Your task to perform on an android device: turn on showing notifications on the lock screen Image 0: 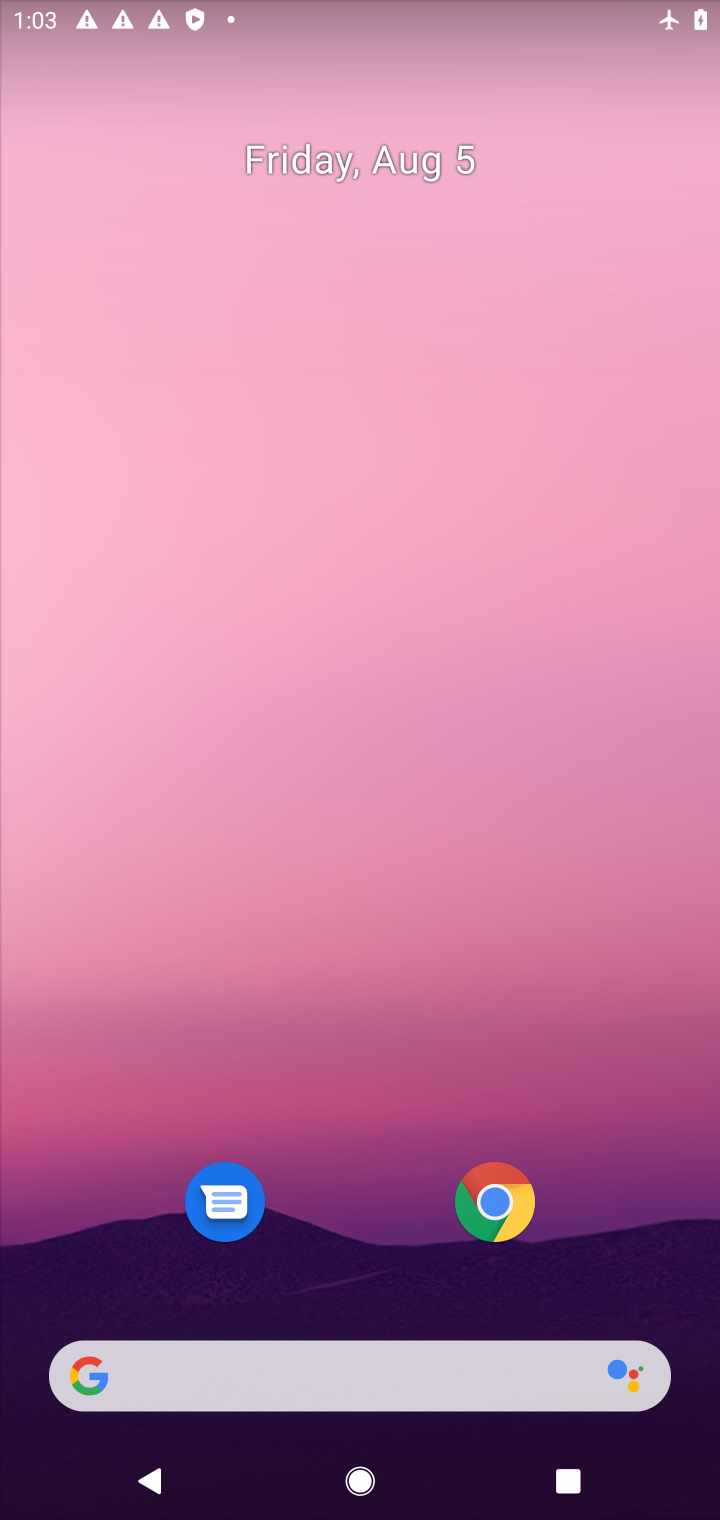
Step 0: drag from (359, 1225) to (569, 138)
Your task to perform on an android device: turn on showing notifications on the lock screen Image 1: 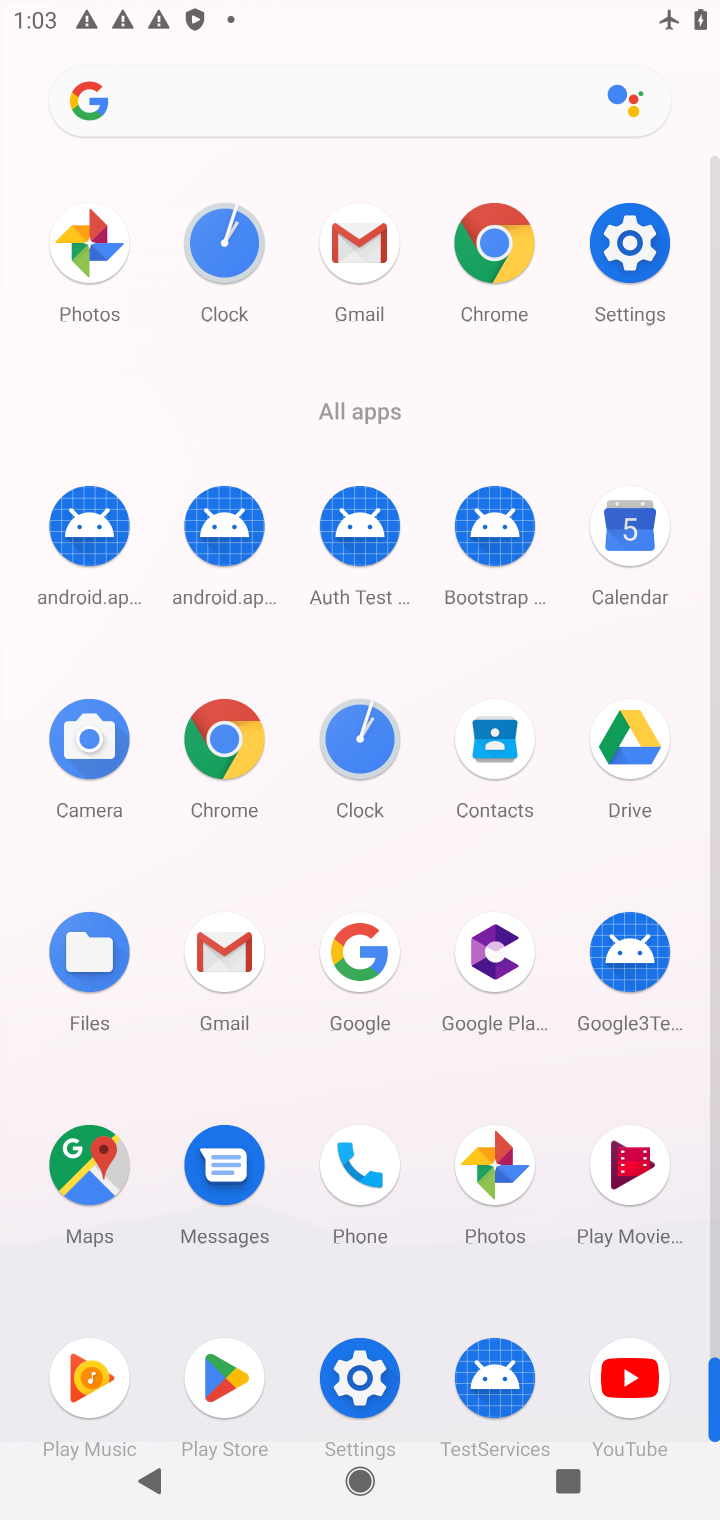
Step 1: click (349, 1398)
Your task to perform on an android device: turn on showing notifications on the lock screen Image 2: 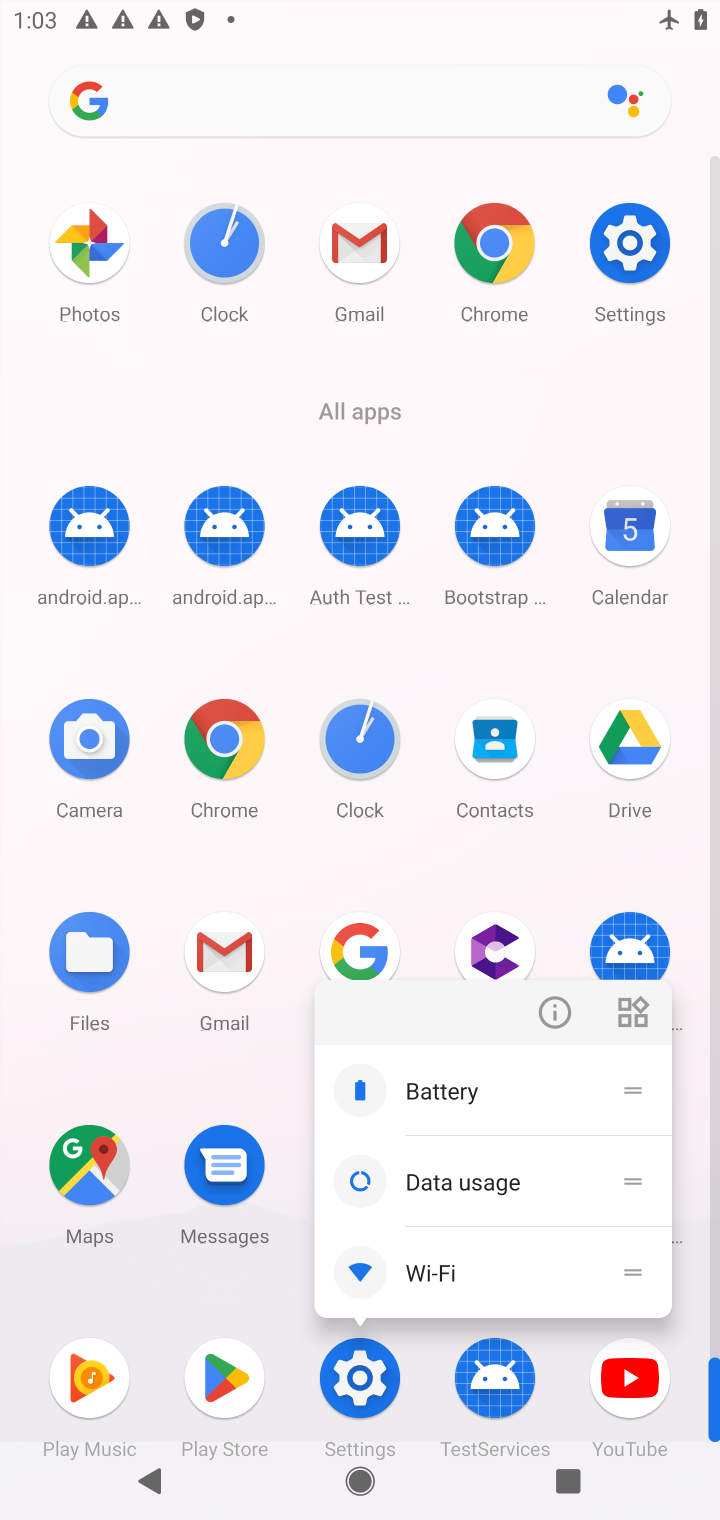
Step 2: click (347, 1392)
Your task to perform on an android device: turn on showing notifications on the lock screen Image 3: 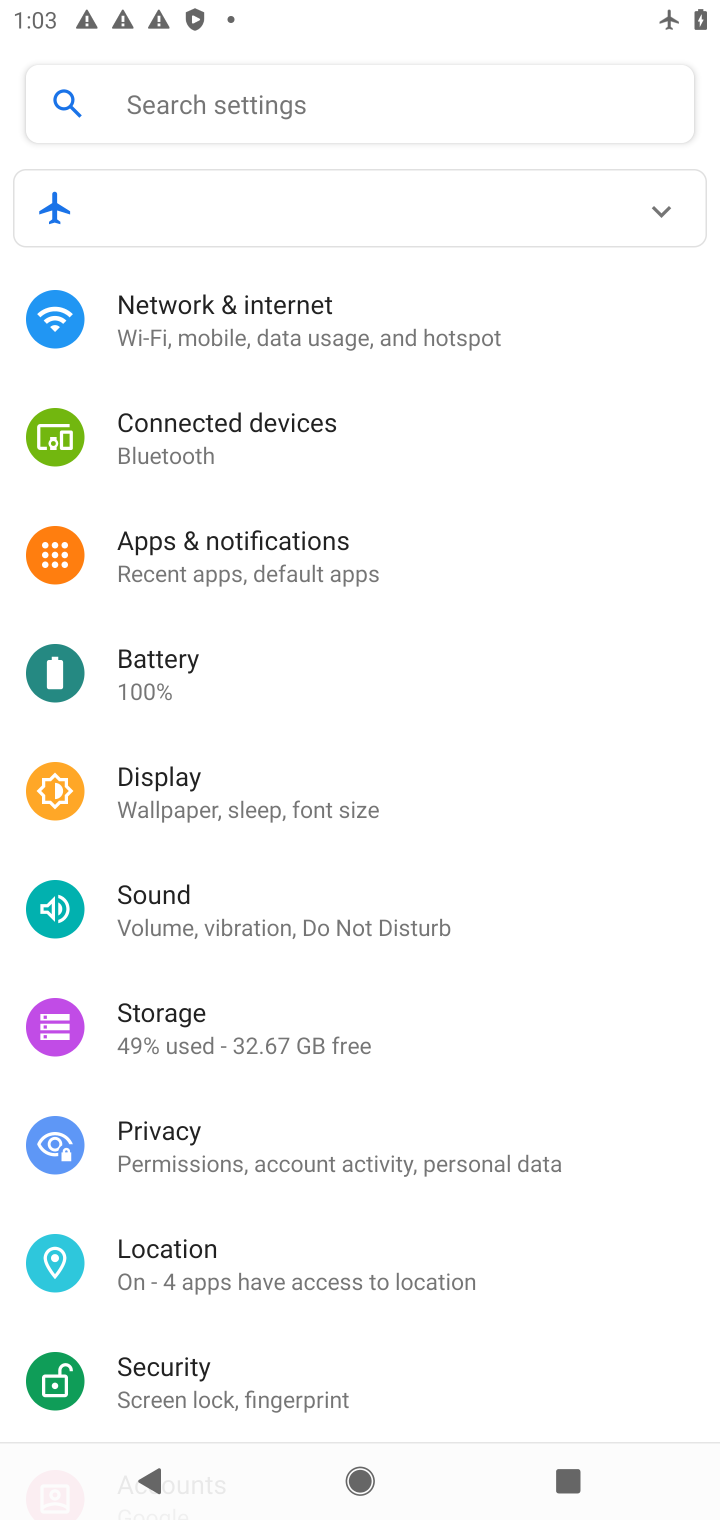
Step 3: click (228, 541)
Your task to perform on an android device: turn on showing notifications on the lock screen Image 4: 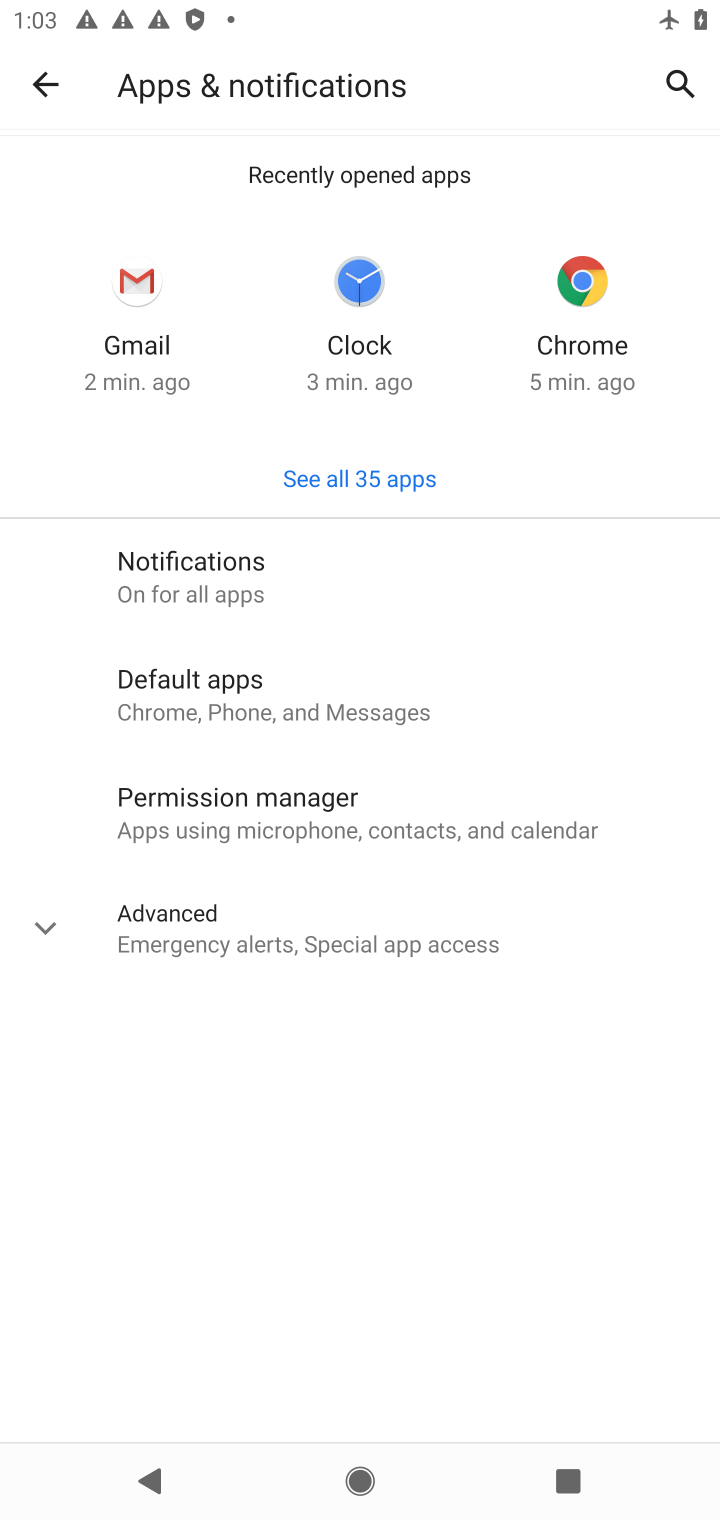
Step 4: click (215, 560)
Your task to perform on an android device: turn on showing notifications on the lock screen Image 5: 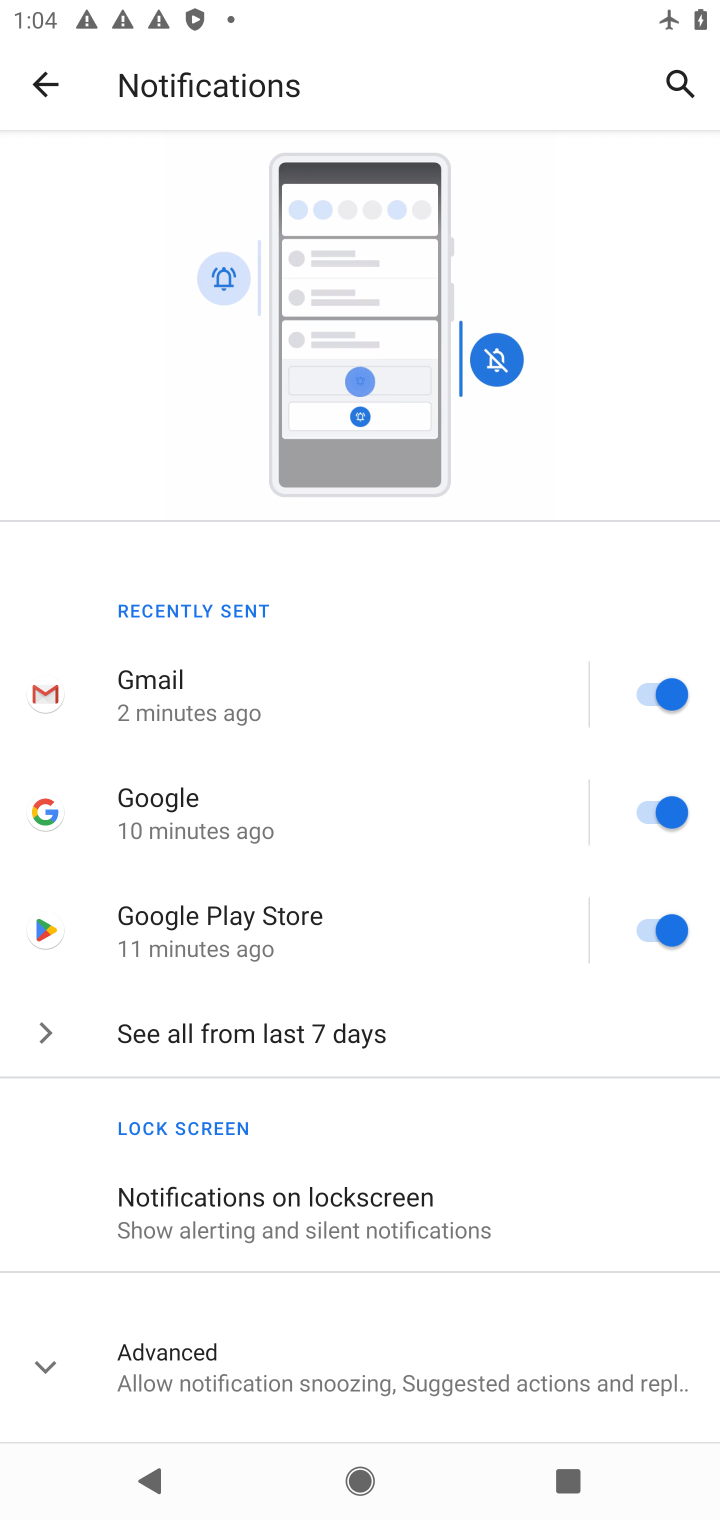
Step 5: click (440, 1214)
Your task to perform on an android device: turn on showing notifications on the lock screen Image 6: 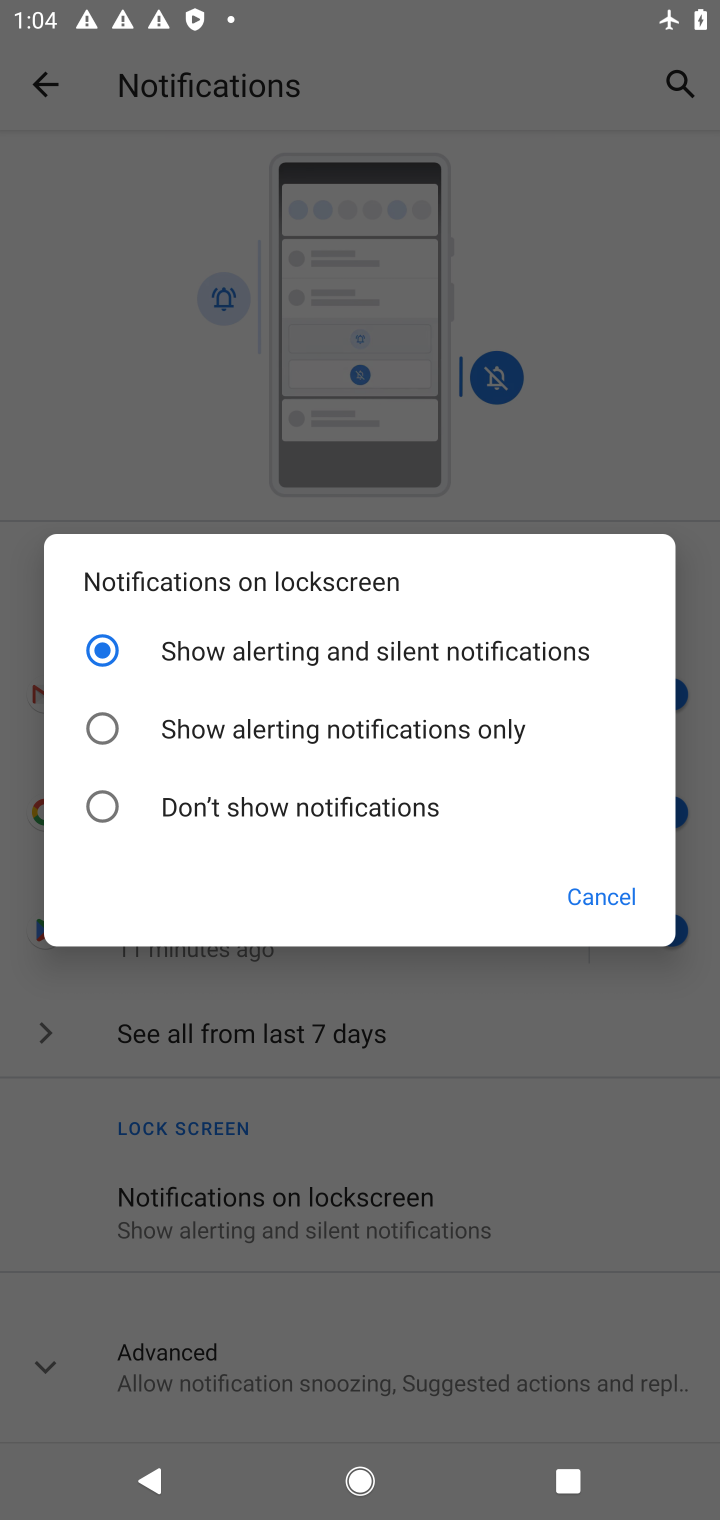
Step 6: click (335, 743)
Your task to perform on an android device: turn on showing notifications on the lock screen Image 7: 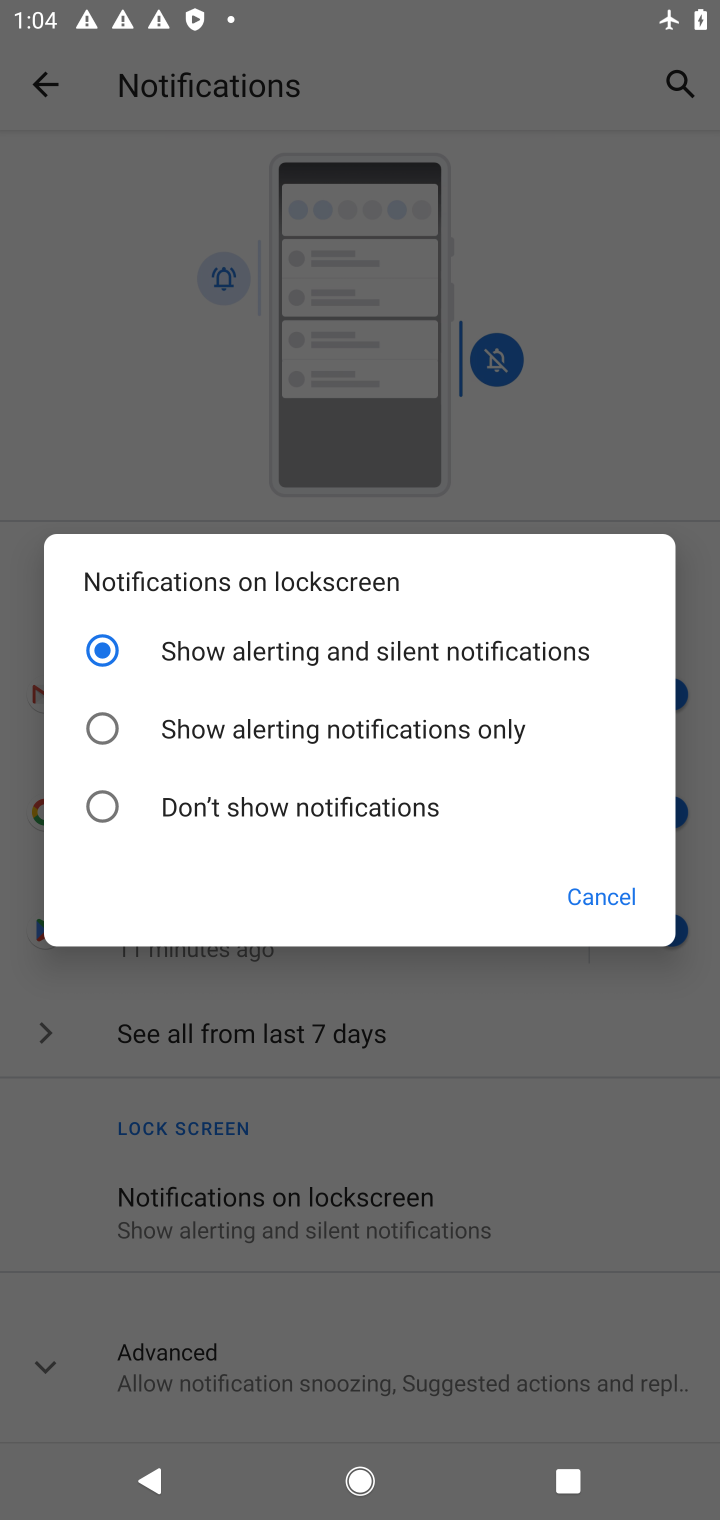
Step 7: task complete